Your task to perform on an android device: install app "eBay: The shopping marketplace" Image 0: 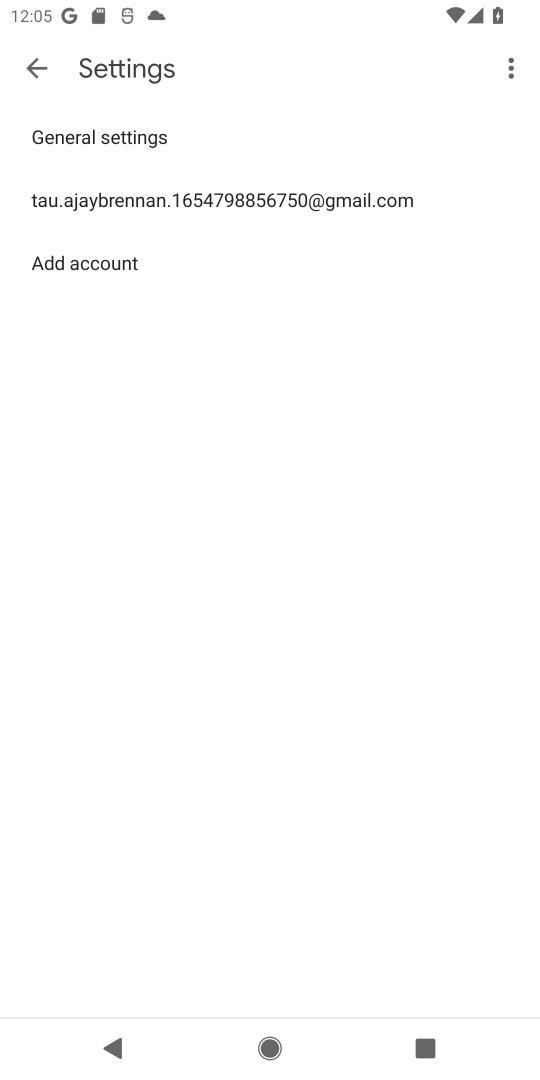
Step 0: press home button
Your task to perform on an android device: install app "eBay: The shopping marketplace" Image 1: 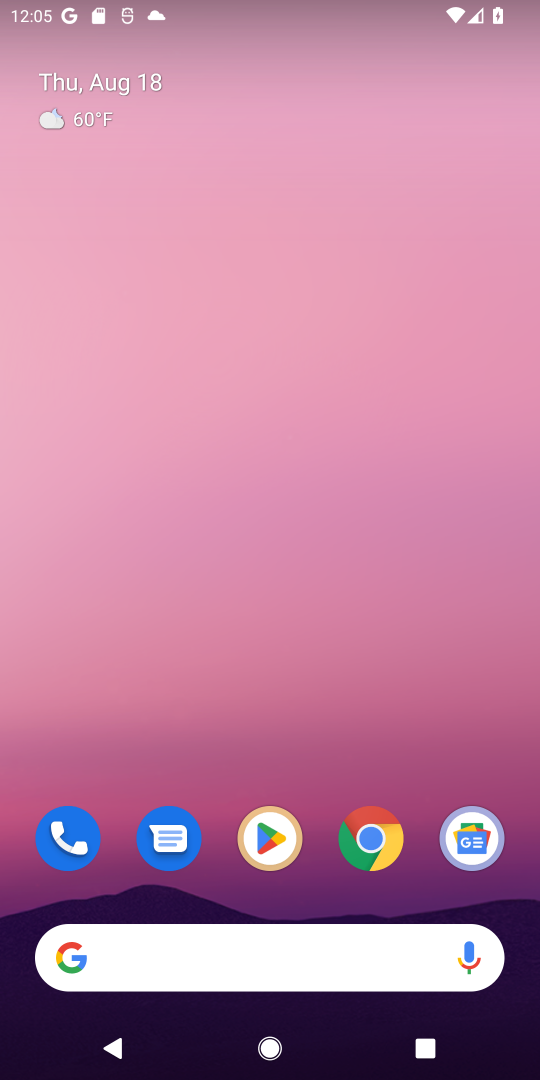
Step 1: click (270, 821)
Your task to perform on an android device: install app "eBay: The shopping marketplace" Image 2: 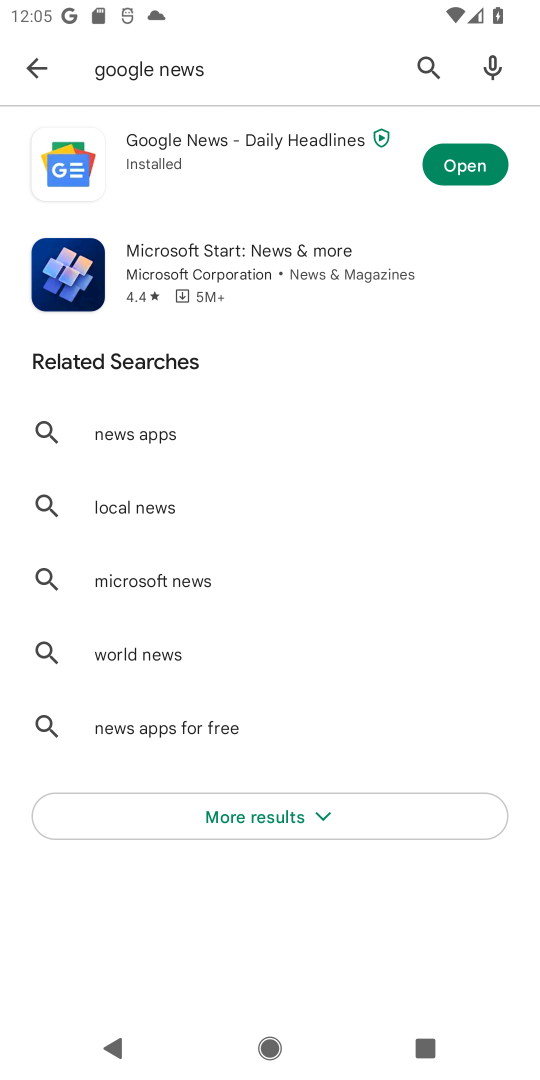
Step 2: click (425, 59)
Your task to perform on an android device: install app "eBay: The shopping marketplace" Image 3: 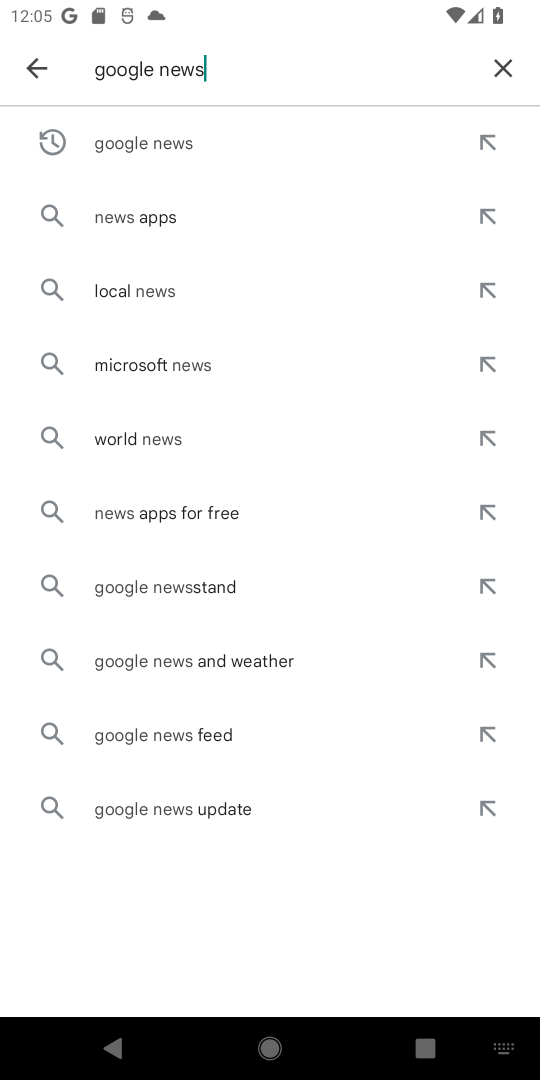
Step 3: click (531, 47)
Your task to perform on an android device: install app "eBay: The shopping marketplace" Image 4: 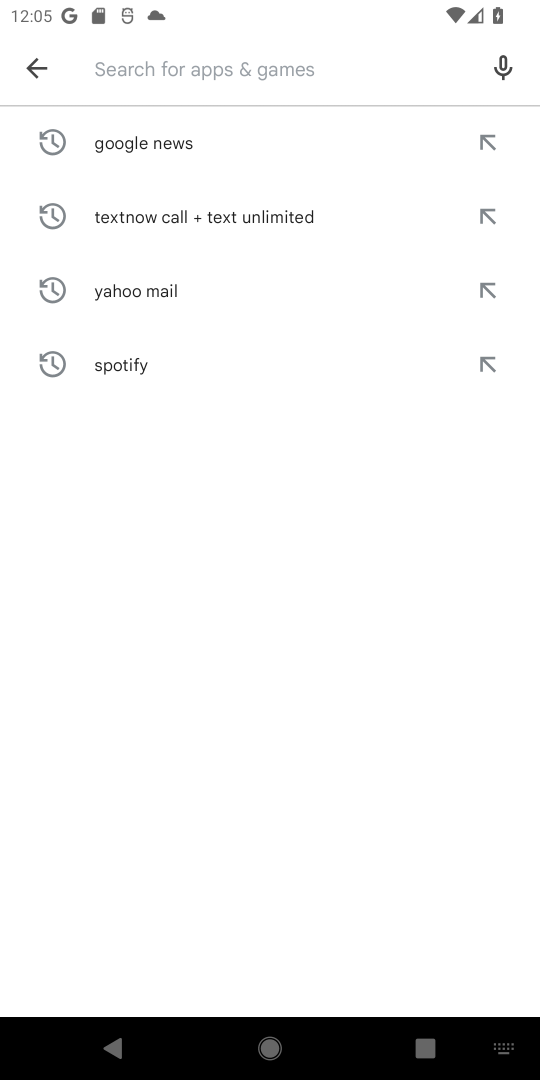
Step 4: type "eBay: The shopping marketplace"
Your task to perform on an android device: install app "eBay: The shopping marketplace" Image 5: 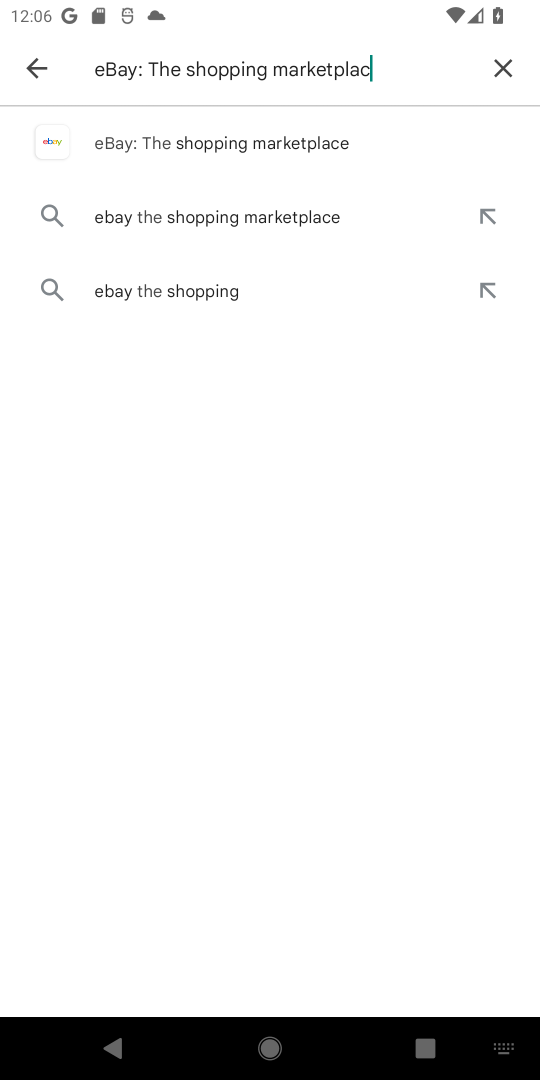
Step 5: type ""
Your task to perform on an android device: install app "eBay: The shopping marketplace" Image 6: 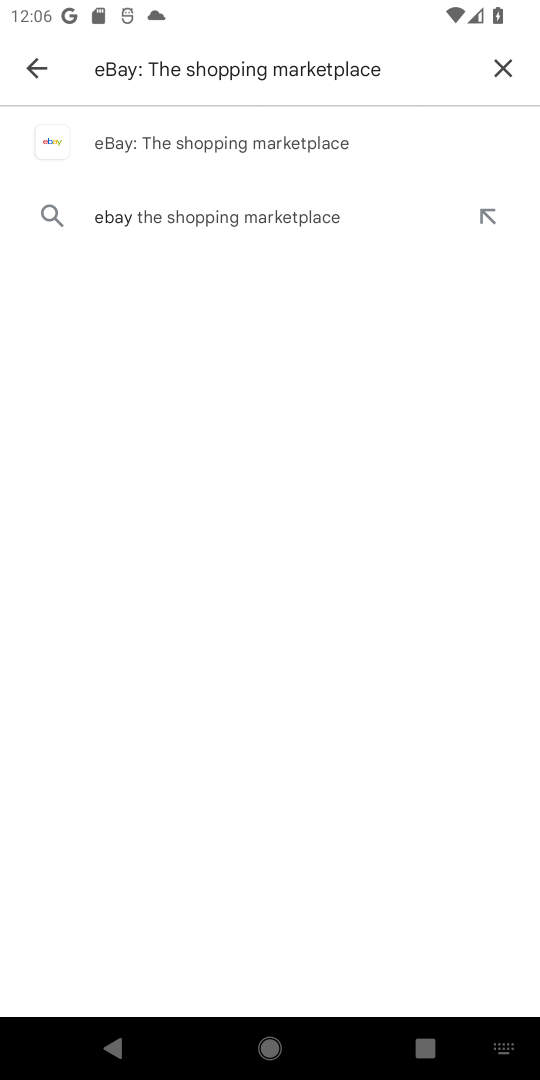
Step 6: click (213, 126)
Your task to perform on an android device: install app "eBay: The shopping marketplace" Image 7: 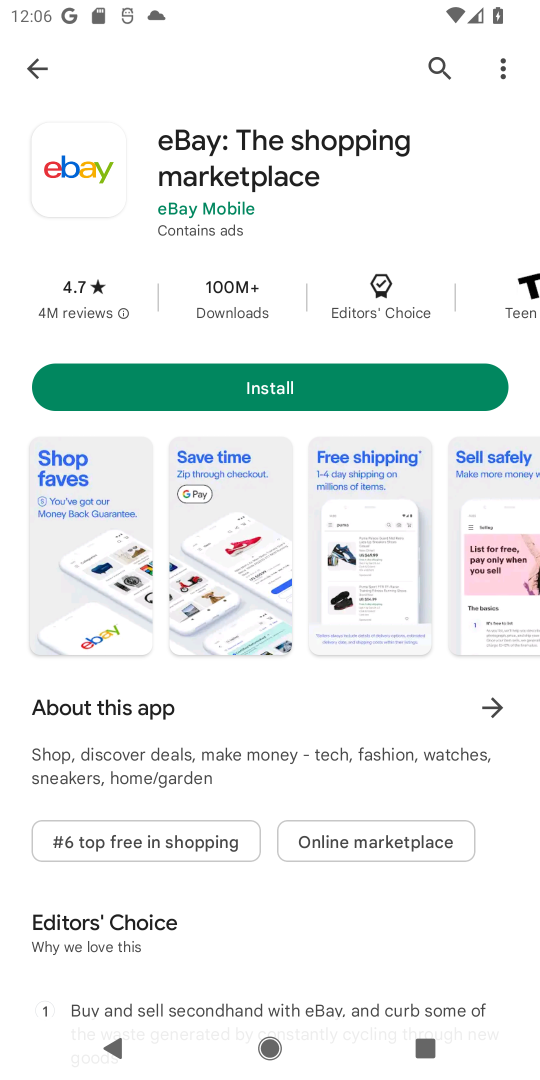
Step 7: click (341, 375)
Your task to perform on an android device: install app "eBay: The shopping marketplace" Image 8: 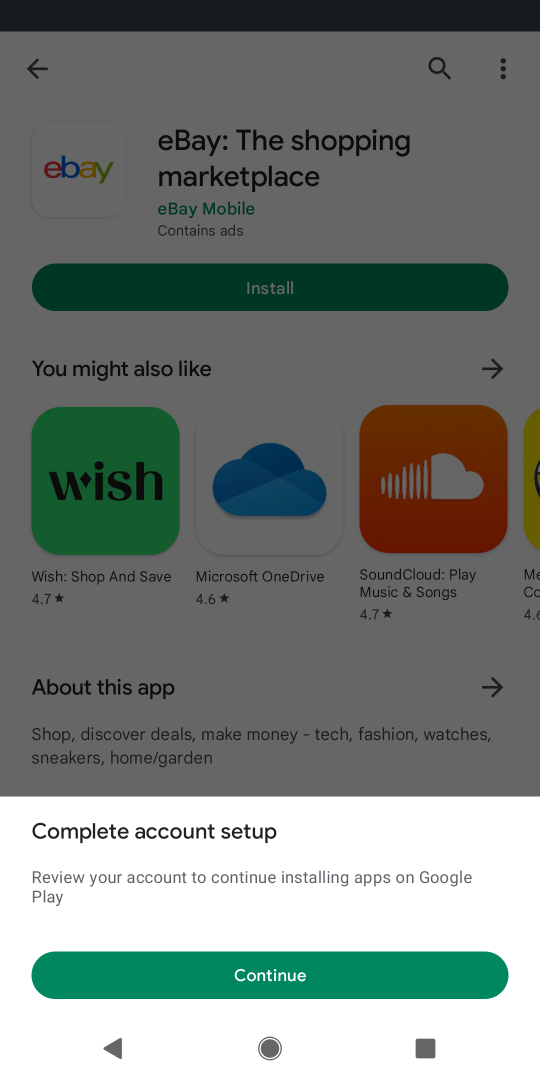
Step 8: click (308, 989)
Your task to perform on an android device: install app "eBay: The shopping marketplace" Image 9: 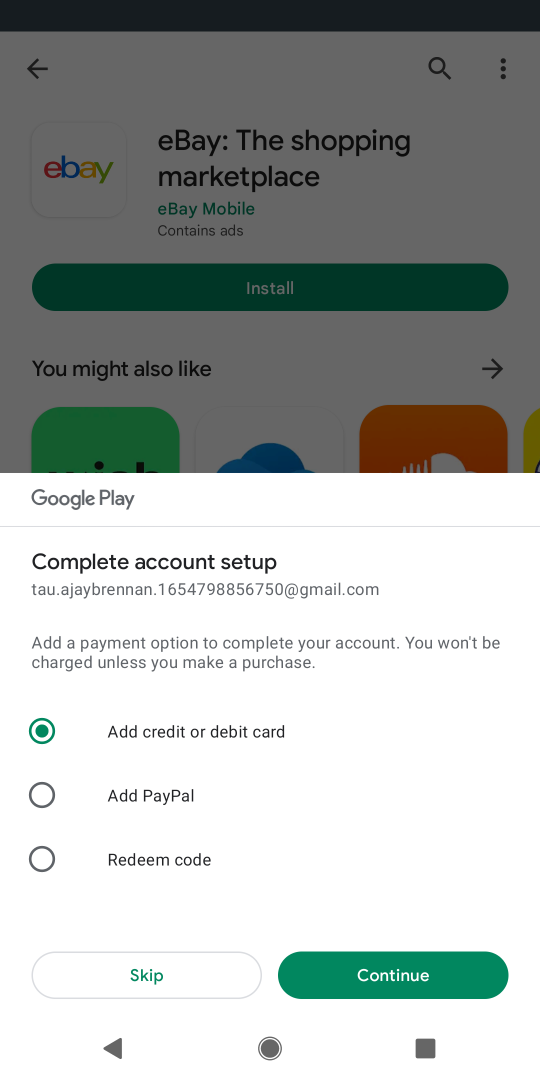
Step 9: click (193, 969)
Your task to perform on an android device: install app "eBay: The shopping marketplace" Image 10: 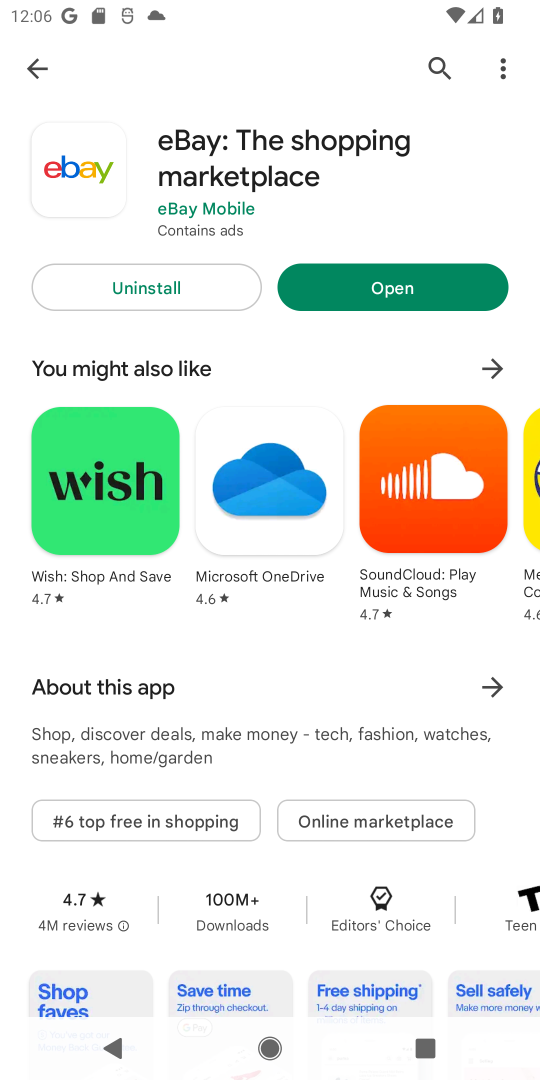
Step 10: task complete